Your task to perform on an android device: Open ESPN.com Image 0: 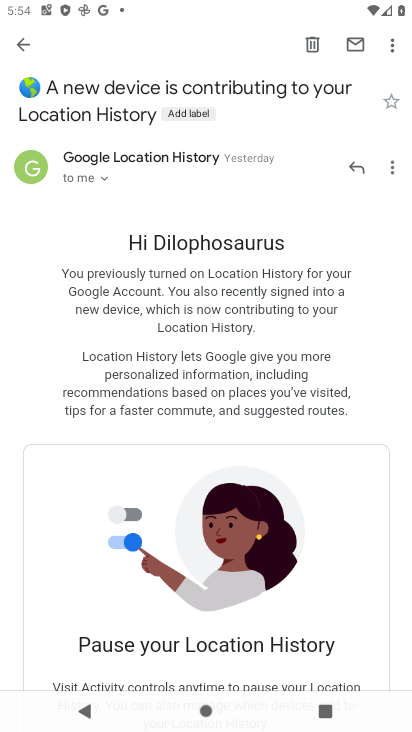
Step 0: press home button
Your task to perform on an android device: Open ESPN.com Image 1: 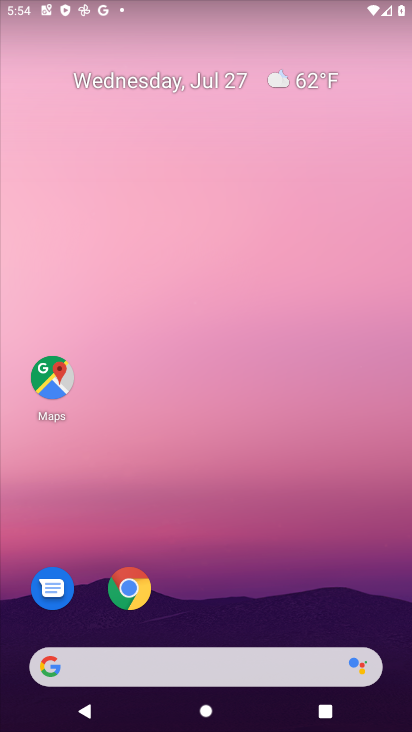
Step 1: click (132, 586)
Your task to perform on an android device: Open ESPN.com Image 2: 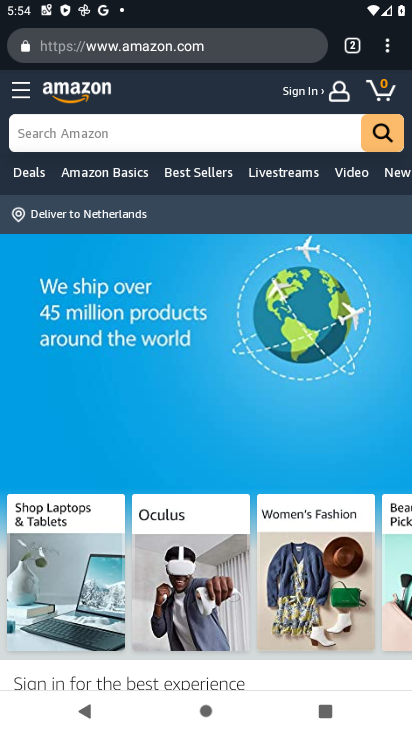
Step 2: click (194, 41)
Your task to perform on an android device: Open ESPN.com Image 3: 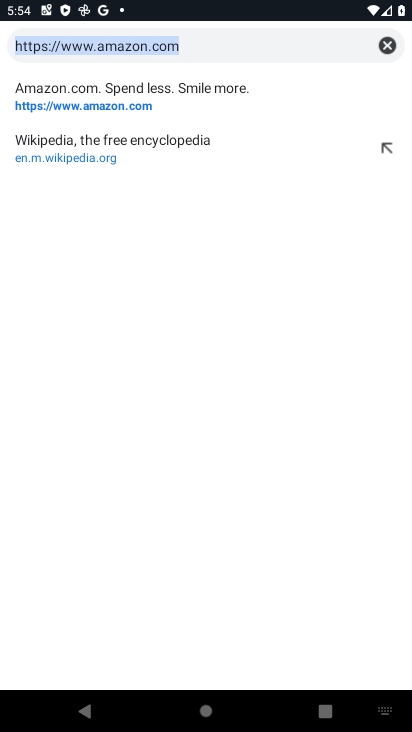
Step 3: type "espn"
Your task to perform on an android device: Open ESPN.com Image 4: 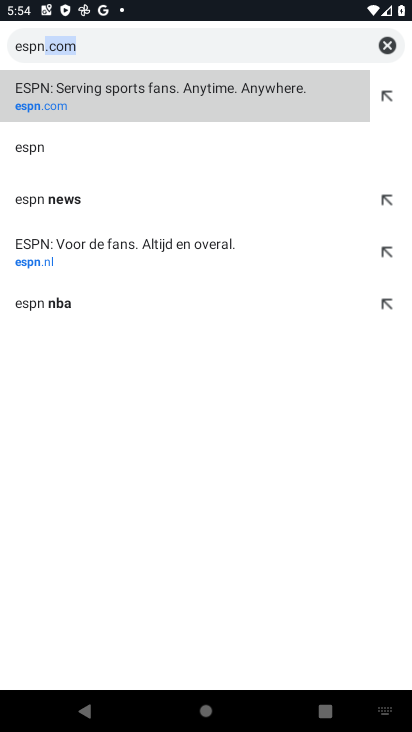
Step 4: click (35, 105)
Your task to perform on an android device: Open ESPN.com Image 5: 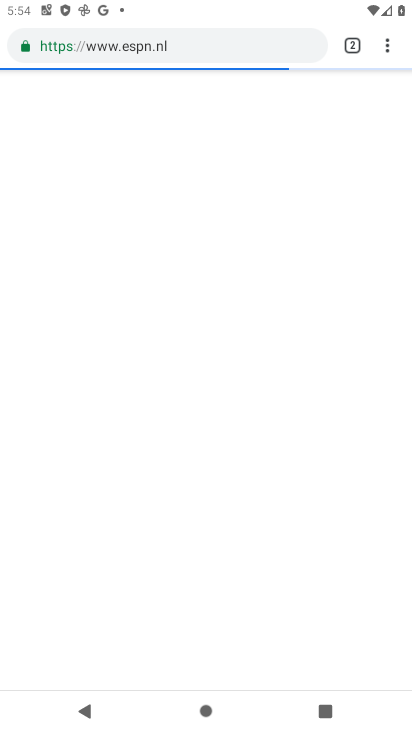
Step 5: task complete